Your task to perform on an android device: Go to wifi settings Image 0: 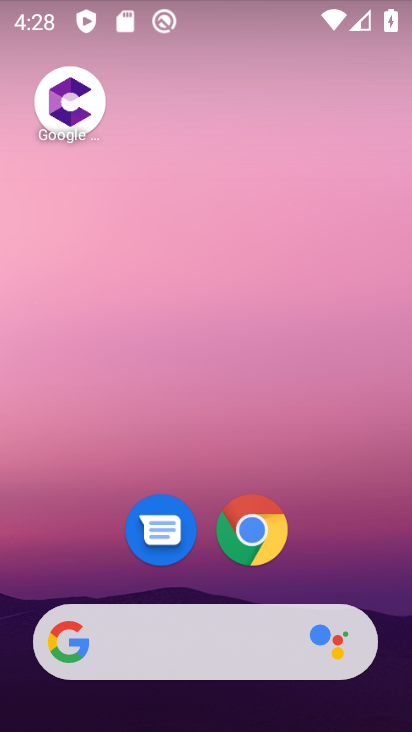
Step 0: drag from (94, 588) to (257, 151)
Your task to perform on an android device: Go to wifi settings Image 1: 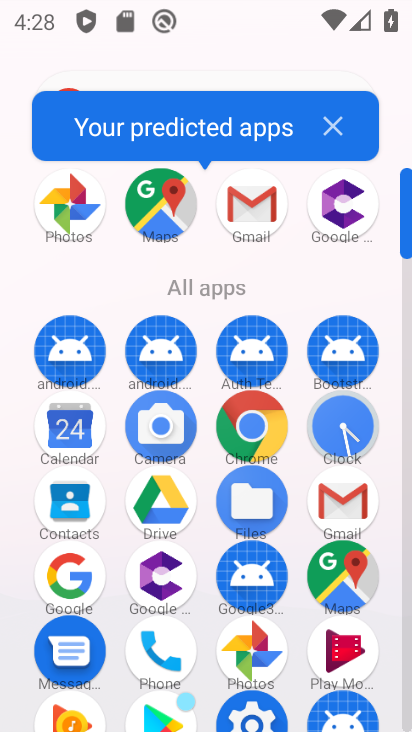
Step 1: drag from (162, 673) to (312, 342)
Your task to perform on an android device: Go to wifi settings Image 2: 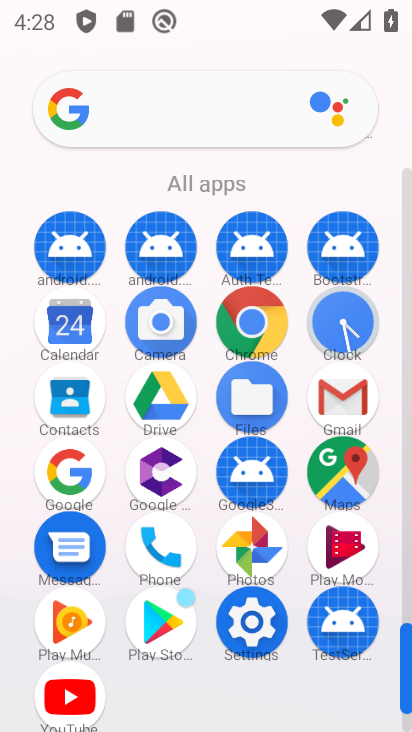
Step 2: click (257, 617)
Your task to perform on an android device: Go to wifi settings Image 3: 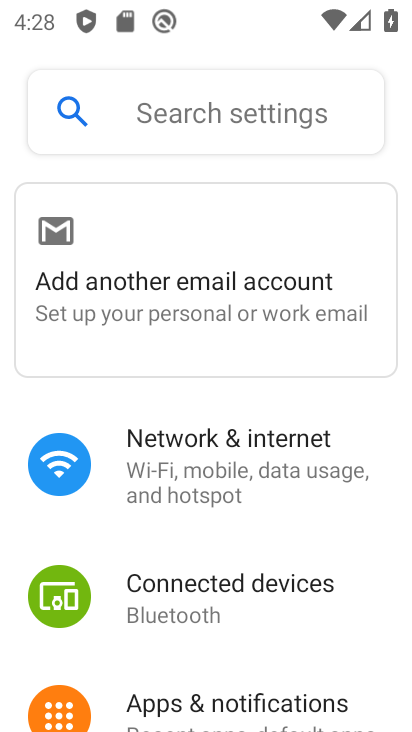
Step 3: click (230, 521)
Your task to perform on an android device: Go to wifi settings Image 4: 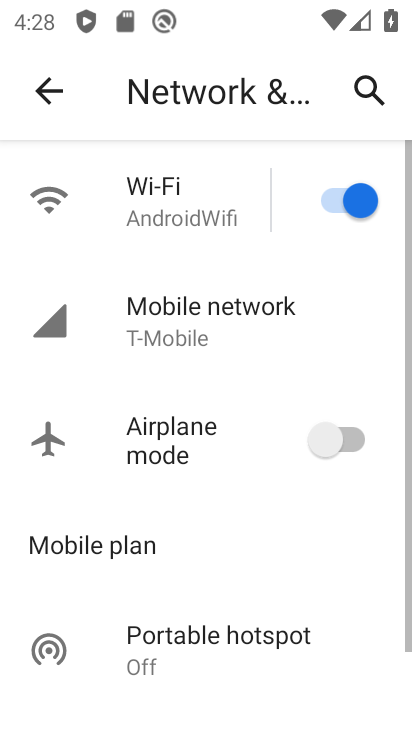
Step 4: click (180, 227)
Your task to perform on an android device: Go to wifi settings Image 5: 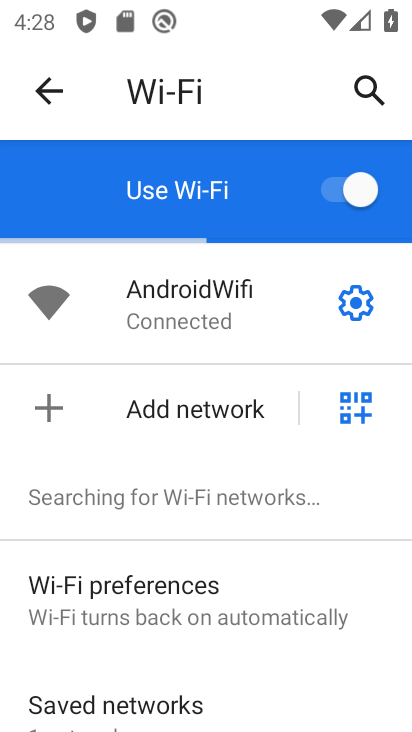
Step 5: task complete